Your task to perform on an android device: Open the phone app and click the voicemail tab. Image 0: 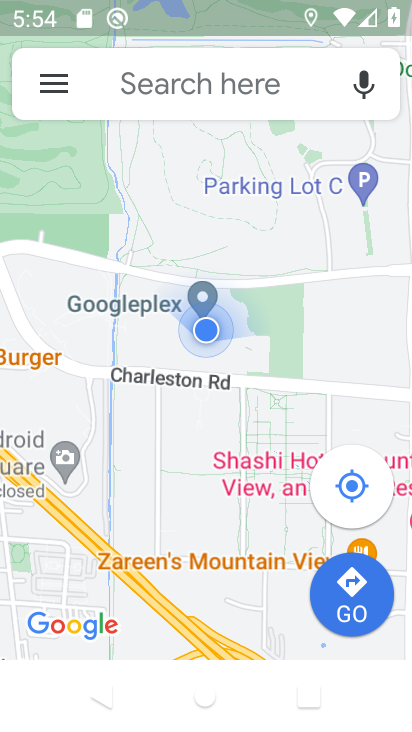
Step 0: press home button
Your task to perform on an android device: Open the phone app and click the voicemail tab. Image 1: 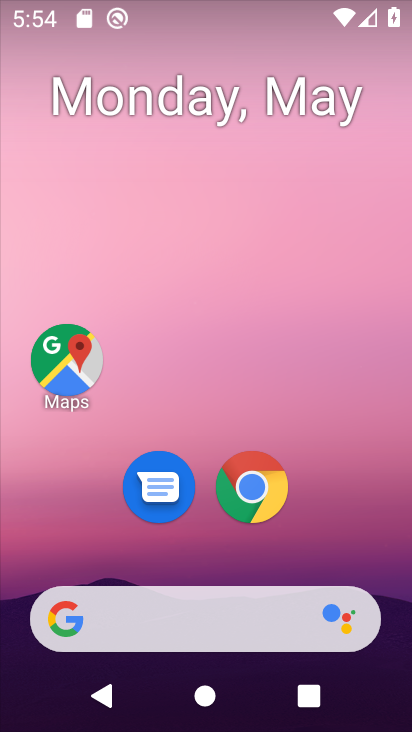
Step 1: drag from (200, 571) to (227, 64)
Your task to perform on an android device: Open the phone app and click the voicemail tab. Image 2: 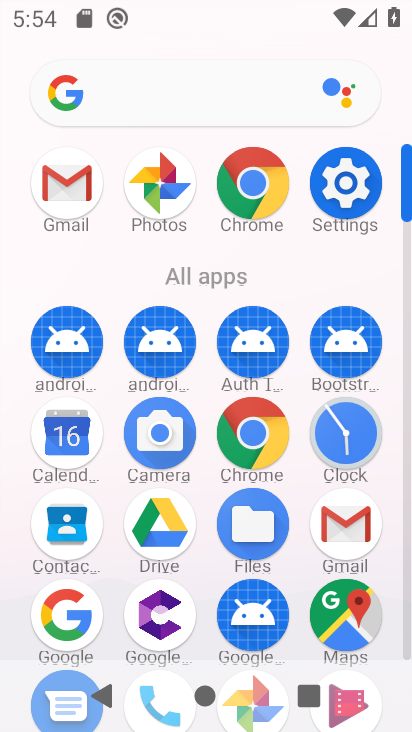
Step 2: drag from (204, 574) to (204, 173)
Your task to perform on an android device: Open the phone app and click the voicemail tab. Image 3: 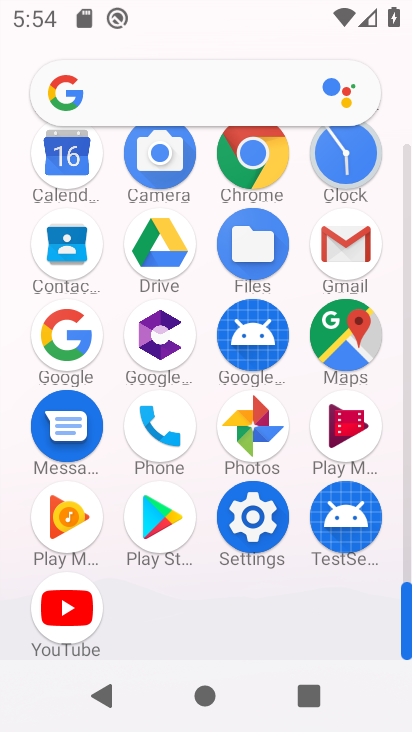
Step 3: click (158, 414)
Your task to perform on an android device: Open the phone app and click the voicemail tab. Image 4: 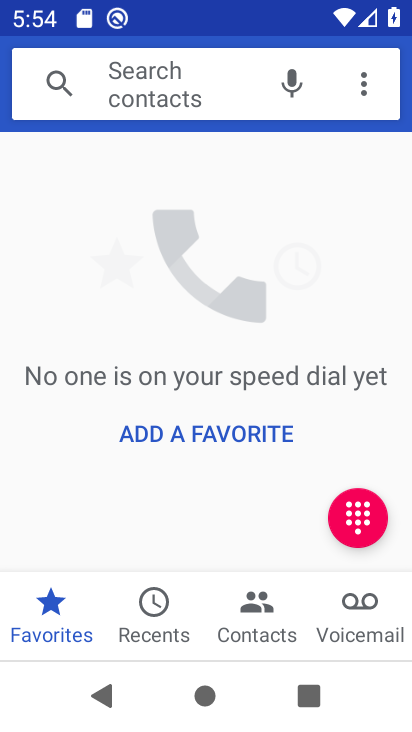
Step 4: click (359, 599)
Your task to perform on an android device: Open the phone app and click the voicemail tab. Image 5: 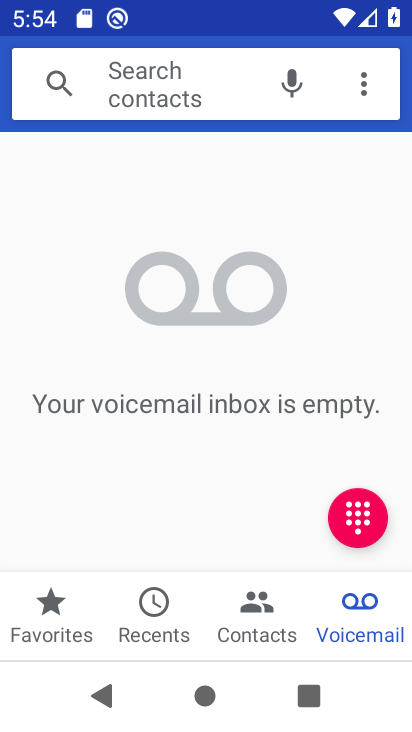
Step 5: task complete